Your task to perform on an android device: Open CNN.com Image 0: 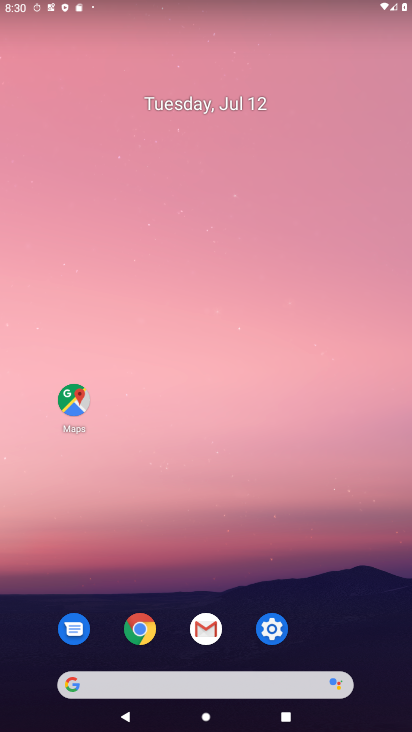
Step 0: press home button
Your task to perform on an android device: Open CNN.com Image 1: 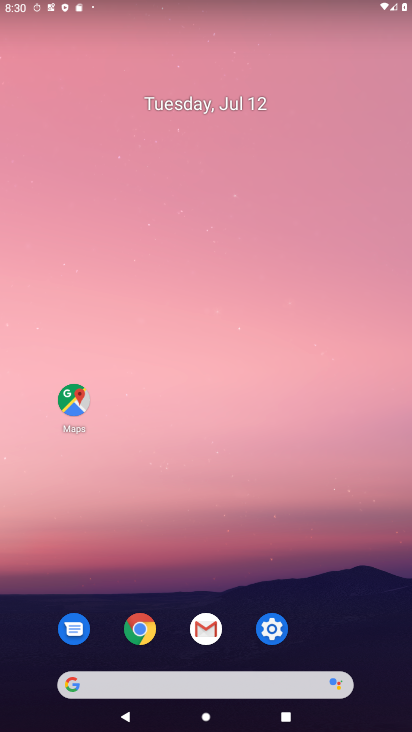
Step 1: click (154, 639)
Your task to perform on an android device: Open CNN.com Image 2: 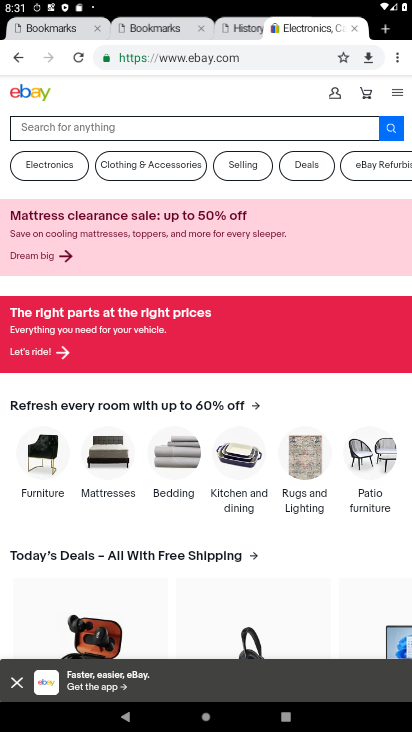
Step 2: click (397, 74)
Your task to perform on an android device: Open CNN.com Image 3: 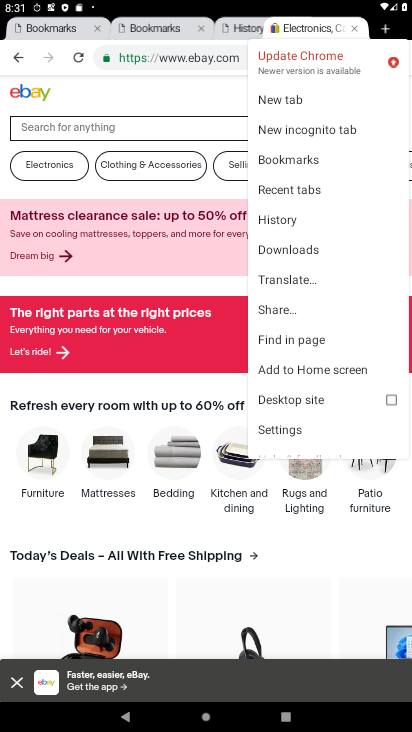
Step 3: click (307, 97)
Your task to perform on an android device: Open CNN.com Image 4: 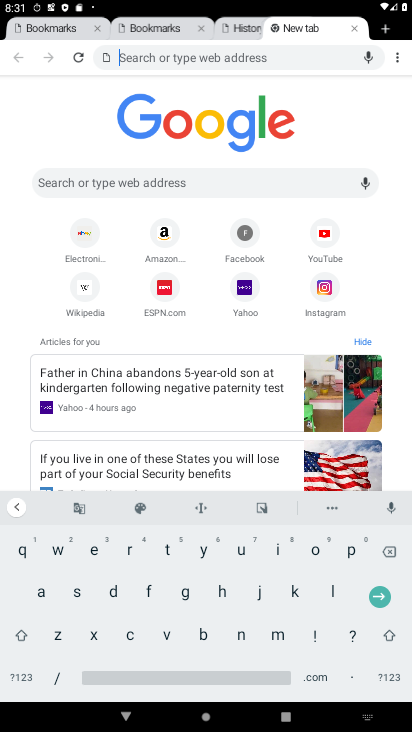
Step 4: click (83, 180)
Your task to perform on an android device: Open CNN.com Image 5: 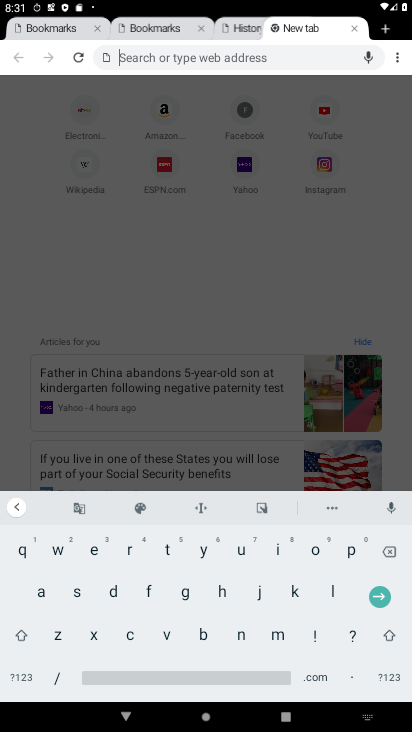
Step 5: click (127, 635)
Your task to perform on an android device: Open CNN.com Image 6: 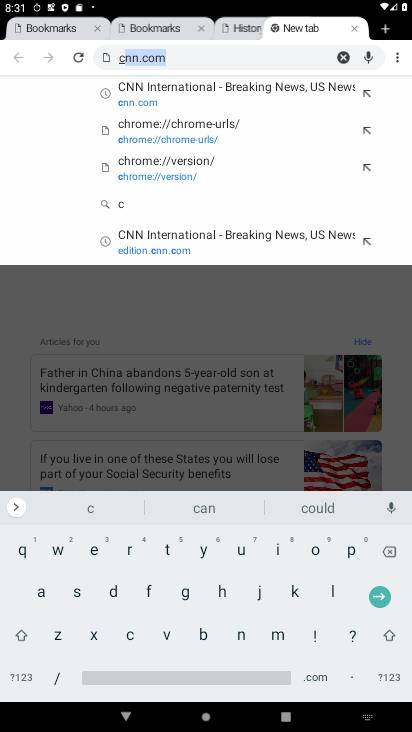
Step 6: click (241, 639)
Your task to perform on an android device: Open CNN.com Image 7: 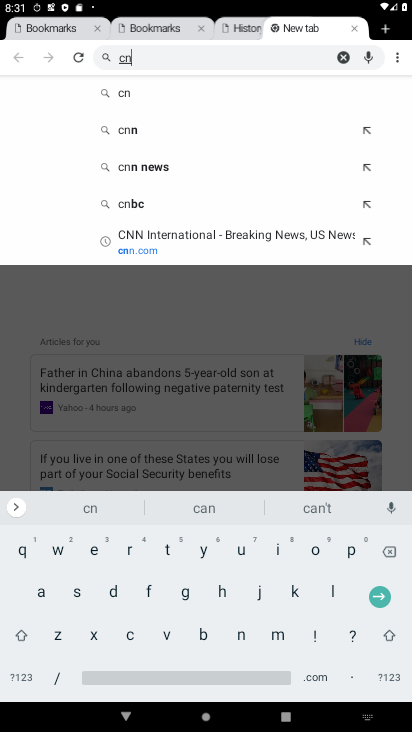
Step 7: click (153, 131)
Your task to perform on an android device: Open CNN.com Image 8: 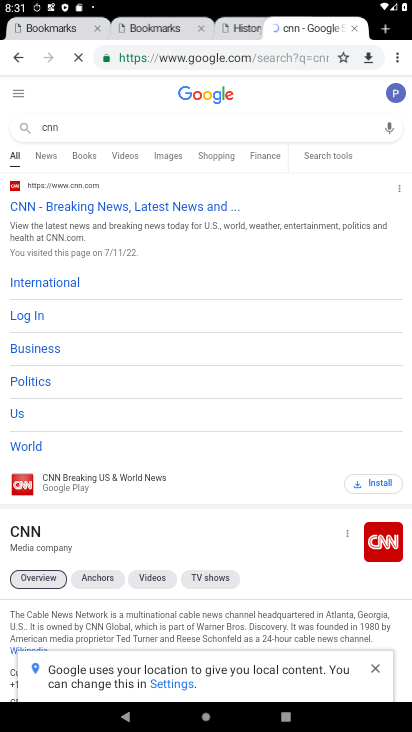
Step 8: click (56, 213)
Your task to perform on an android device: Open CNN.com Image 9: 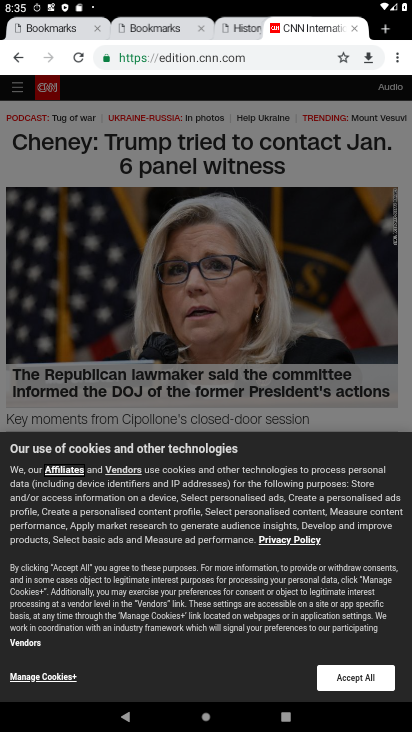
Step 9: task complete